Your task to perform on an android device: turn off wifi Image 0: 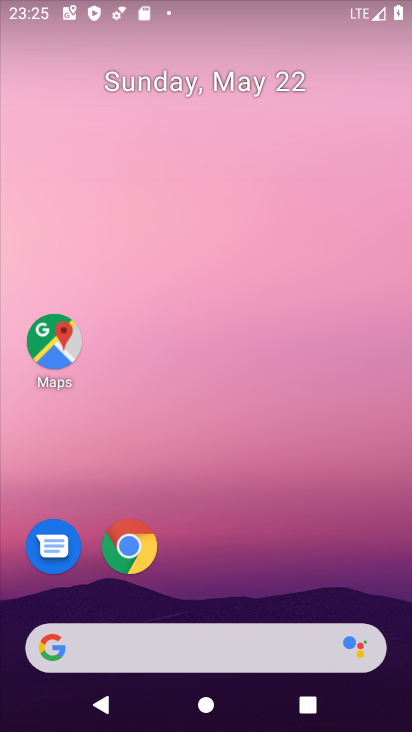
Step 0: drag from (191, 613) to (267, 203)
Your task to perform on an android device: turn off wifi Image 1: 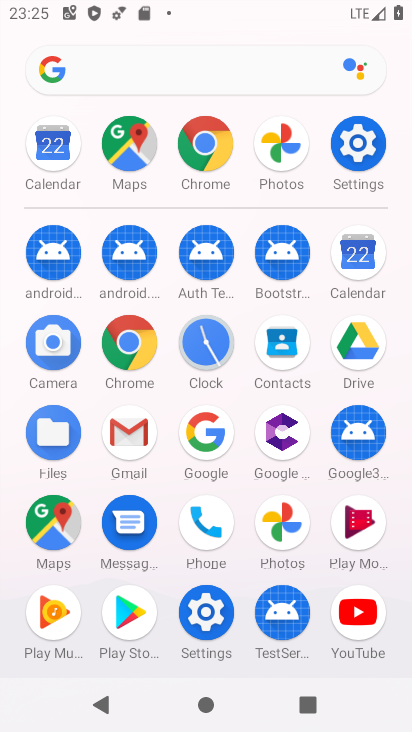
Step 1: click (351, 145)
Your task to perform on an android device: turn off wifi Image 2: 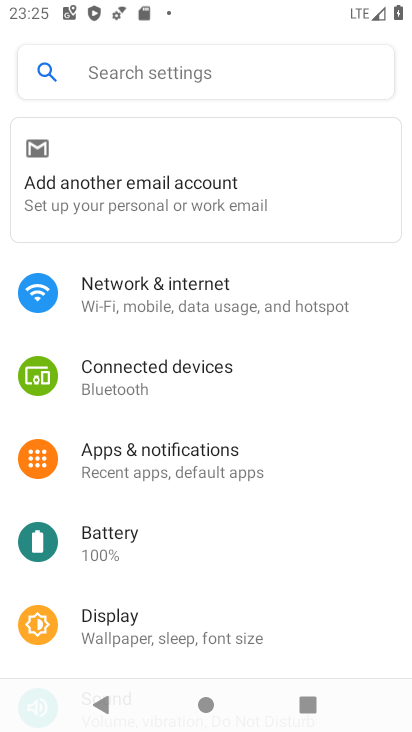
Step 2: click (166, 285)
Your task to perform on an android device: turn off wifi Image 3: 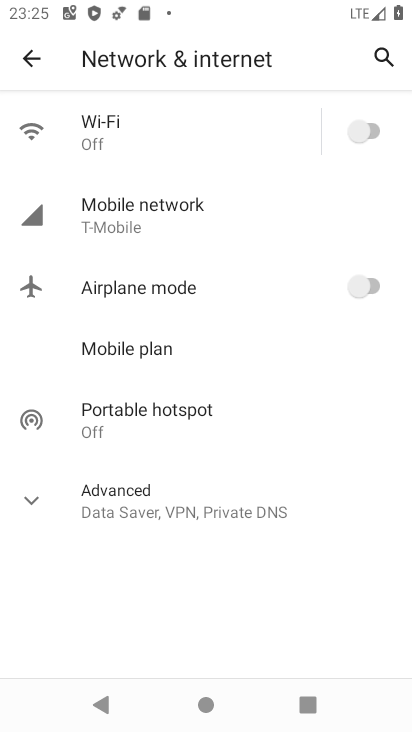
Step 3: click (183, 137)
Your task to perform on an android device: turn off wifi Image 4: 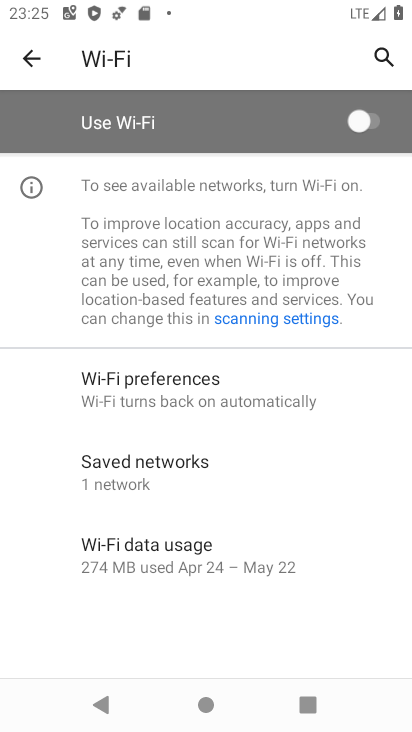
Step 4: task complete